Your task to perform on an android device: What's the weather? Image 0: 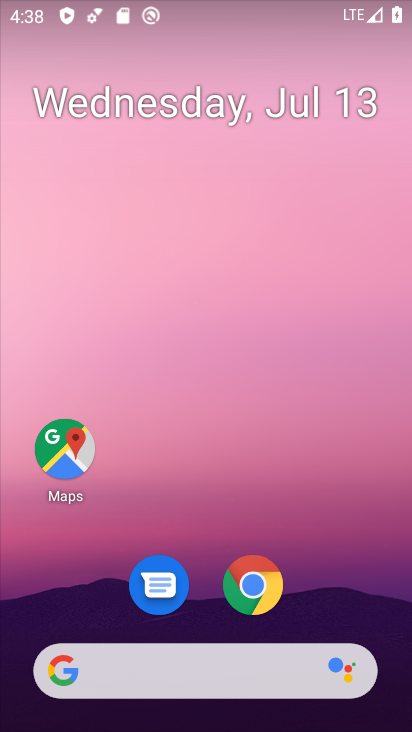
Step 0: click (210, 674)
Your task to perform on an android device: What's the weather? Image 1: 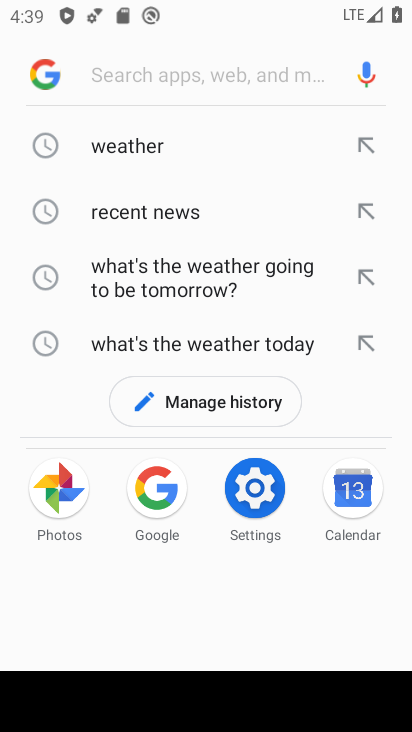
Step 1: click (126, 147)
Your task to perform on an android device: What's the weather? Image 2: 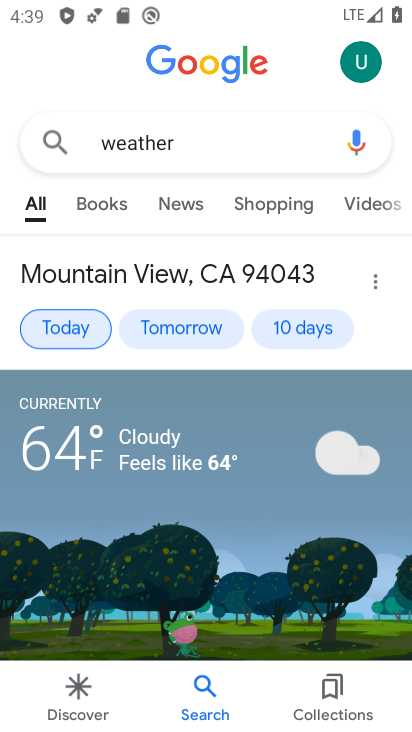
Step 2: click (74, 324)
Your task to perform on an android device: What's the weather? Image 3: 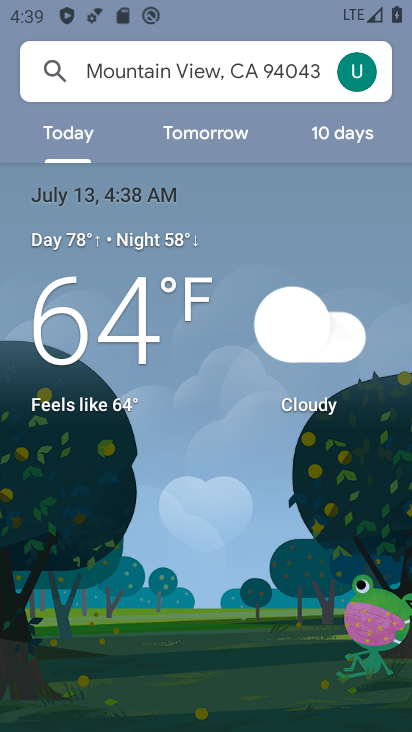
Step 3: task complete